Your task to perform on an android device: What's the weather? Image 0: 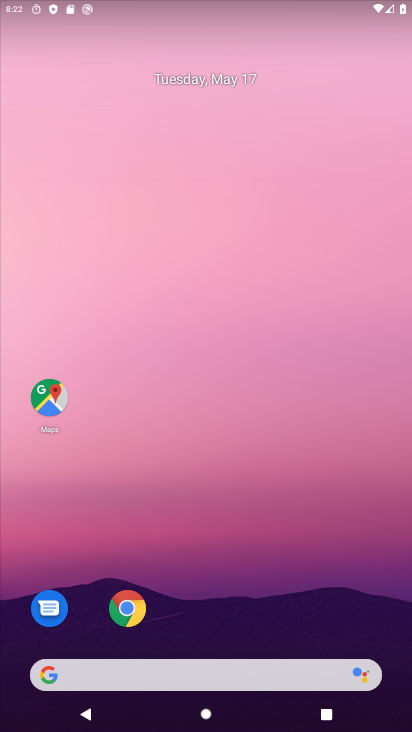
Step 0: drag from (255, 552) to (259, 188)
Your task to perform on an android device: What's the weather? Image 1: 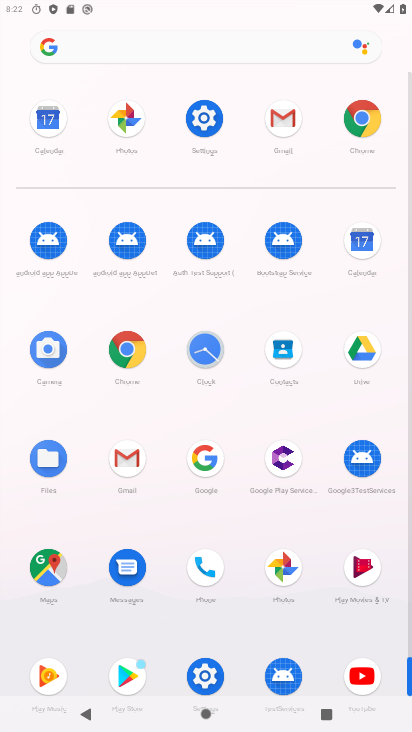
Step 1: click (117, 357)
Your task to perform on an android device: What's the weather? Image 2: 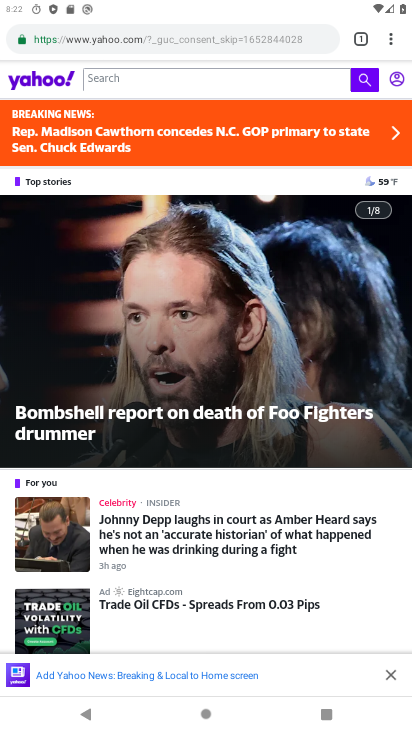
Step 2: click (188, 32)
Your task to perform on an android device: What's the weather? Image 3: 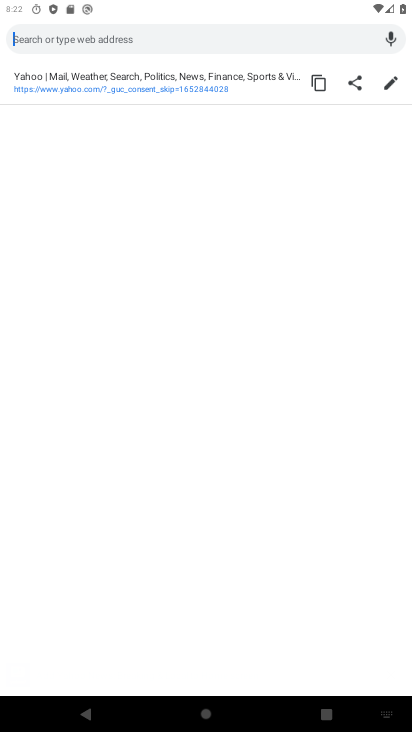
Step 3: type "what's the weather "
Your task to perform on an android device: What's the weather? Image 4: 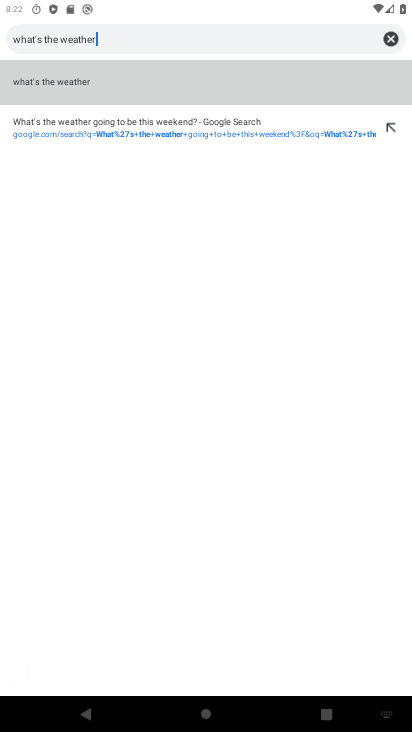
Step 4: click (79, 79)
Your task to perform on an android device: What's the weather? Image 5: 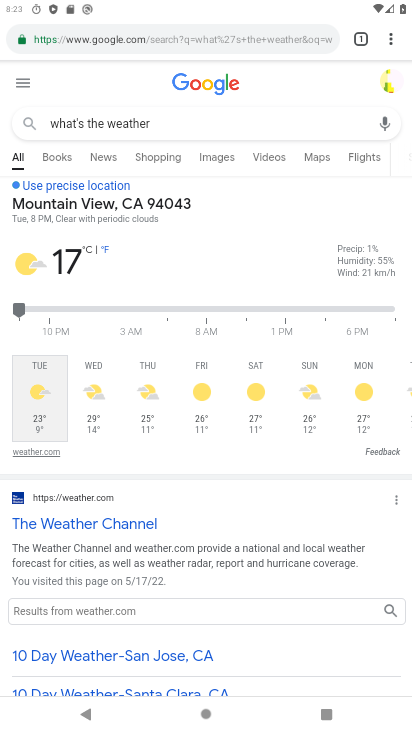
Step 5: task complete